Your task to perform on an android device: Show the shopping cart on amazon. Search for "asus rog" on amazon, select the first entry, and add it to the cart. Image 0: 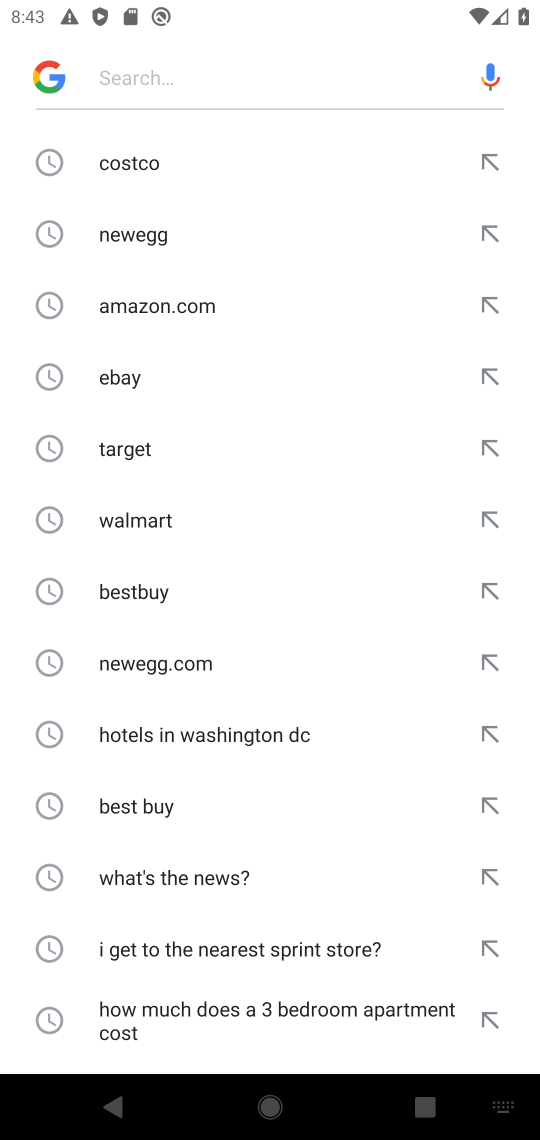
Step 0: press home button
Your task to perform on an android device: Show the shopping cart on amazon. Search for "asus rog" on amazon, select the first entry, and add it to the cart. Image 1: 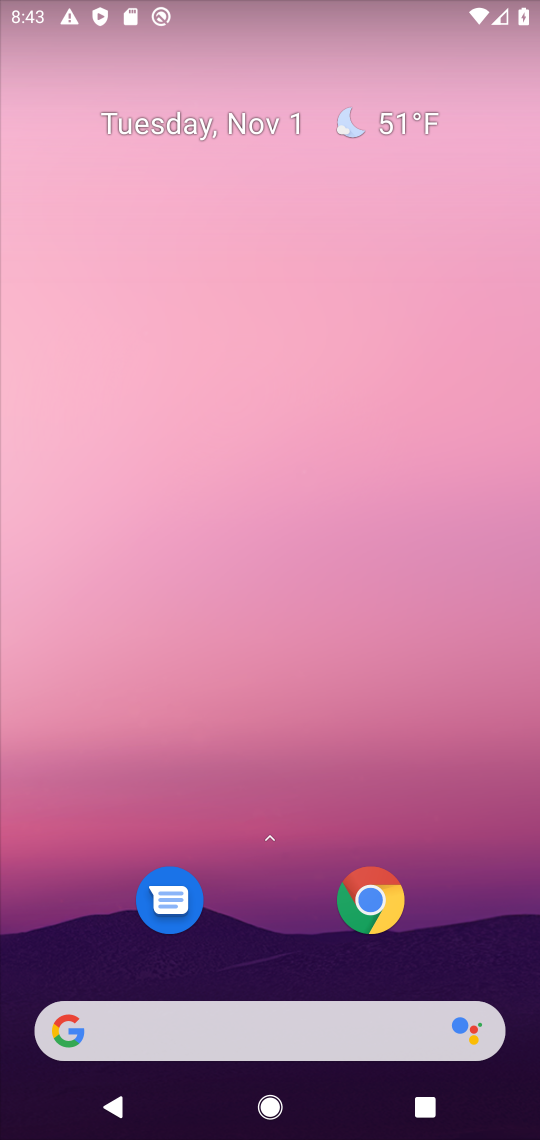
Step 1: drag from (373, 1093) to (528, 44)
Your task to perform on an android device: Show the shopping cart on amazon. Search for "asus rog" on amazon, select the first entry, and add it to the cart. Image 2: 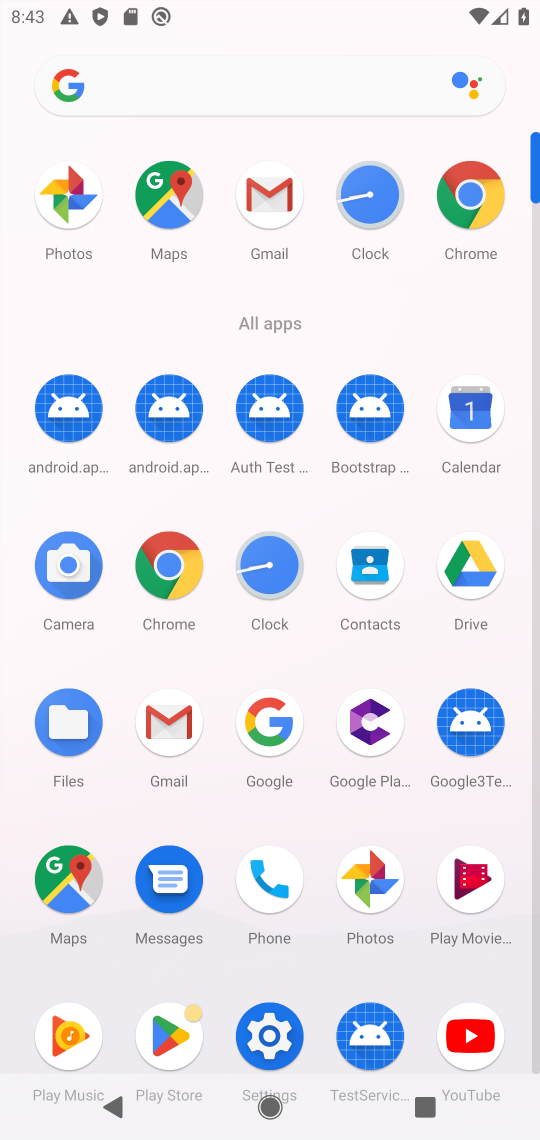
Step 2: click (174, 573)
Your task to perform on an android device: Show the shopping cart on amazon. Search for "asus rog" on amazon, select the first entry, and add it to the cart. Image 3: 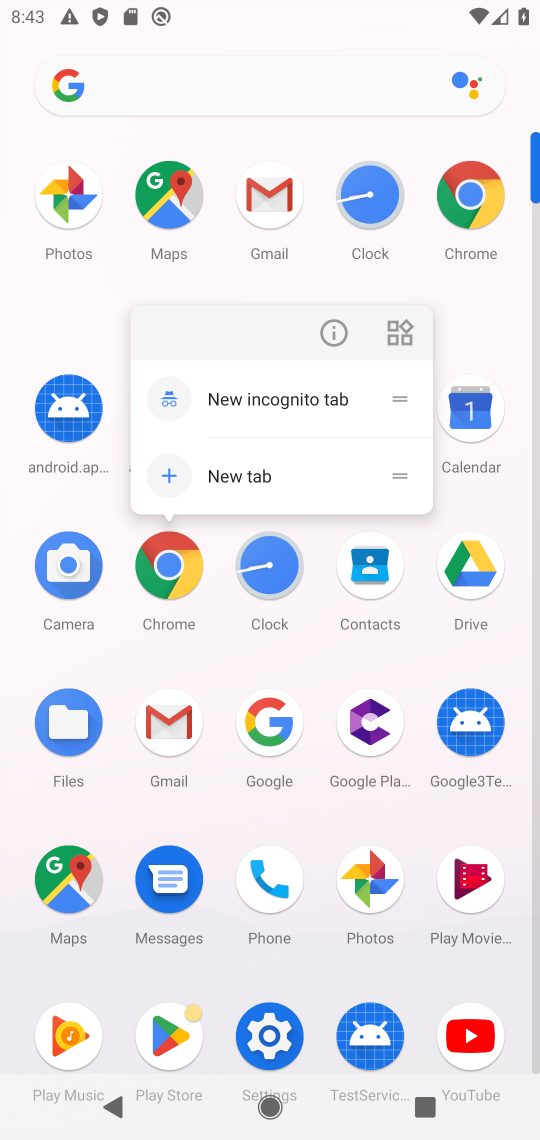
Step 3: click (176, 568)
Your task to perform on an android device: Show the shopping cart on amazon. Search for "asus rog" on amazon, select the first entry, and add it to the cart. Image 4: 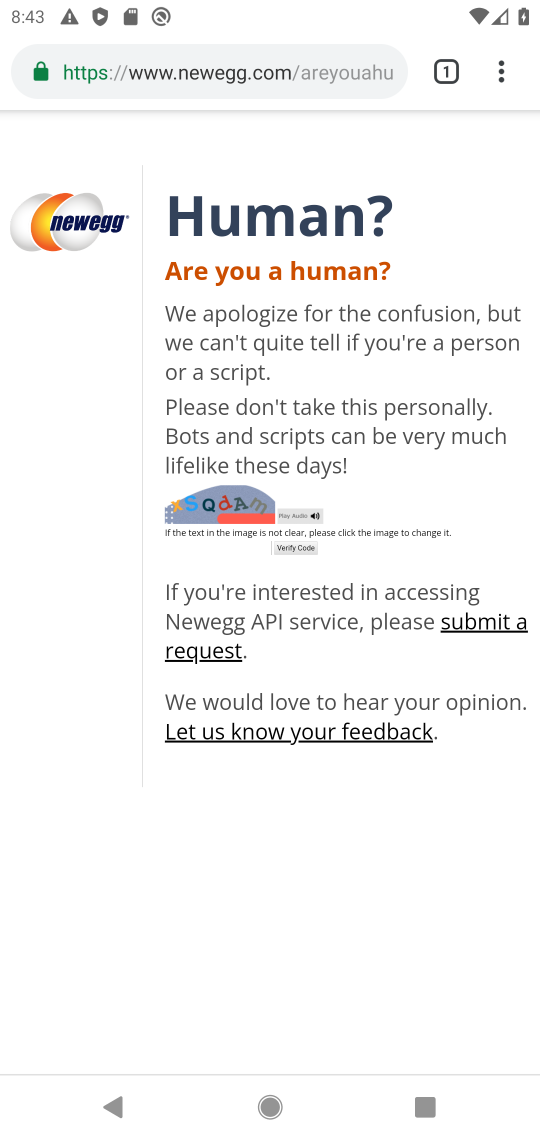
Step 4: click (279, 68)
Your task to perform on an android device: Show the shopping cart on amazon. Search for "asus rog" on amazon, select the first entry, and add it to the cart. Image 5: 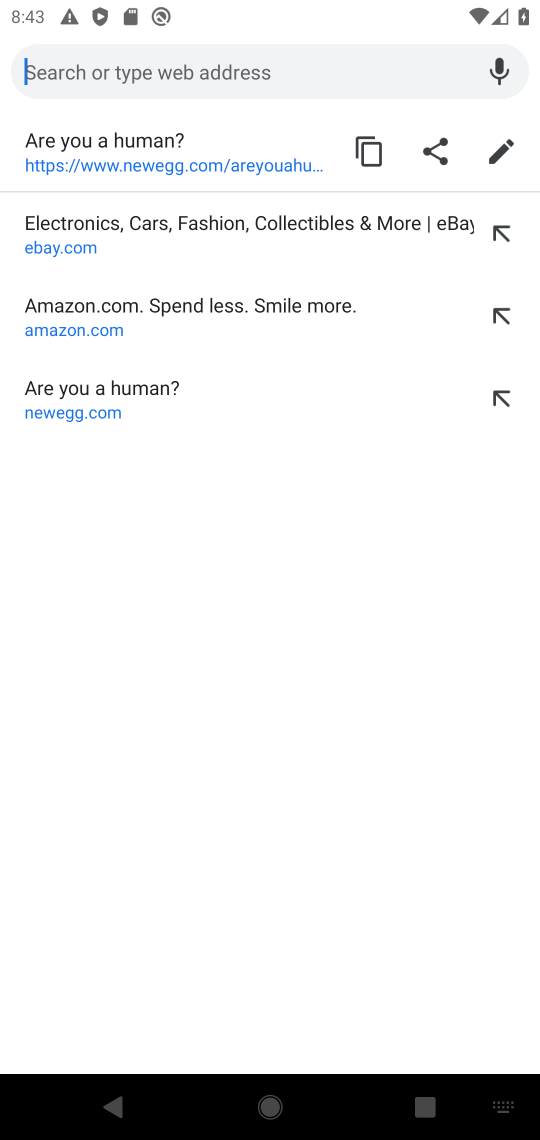
Step 5: type " amazon"
Your task to perform on an android device: Show the shopping cart on amazon. Search for "asus rog" on amazon, select the first entry, and add it to the cart. Image 6: 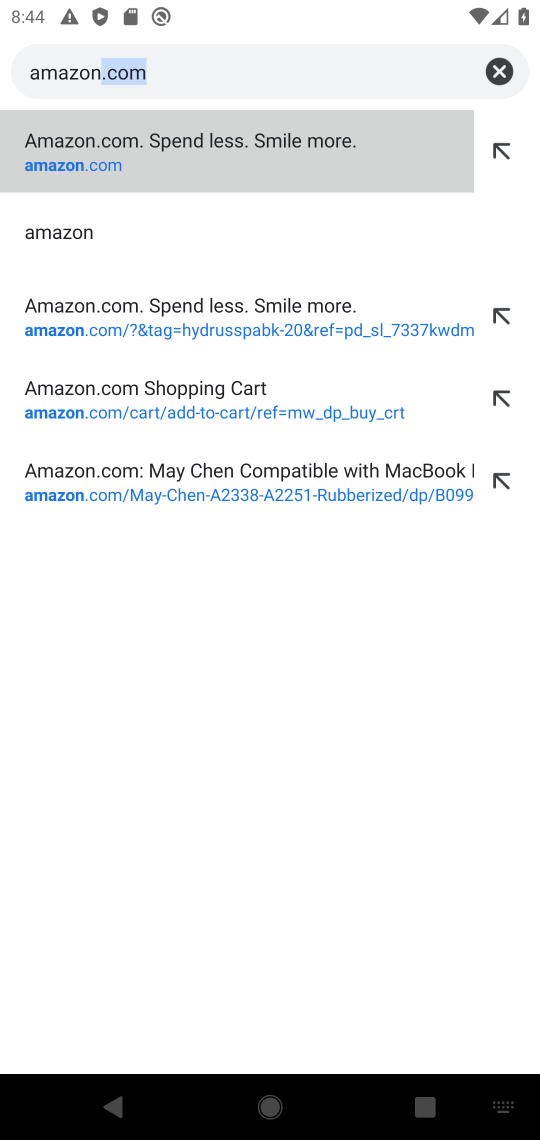
Step 6: click (83, 164)
Your task to perform on an android device: Show the shopping cart on amazon. Search for "asus rog" on amazon, select the first entry, and add it to the cart. Image 7: 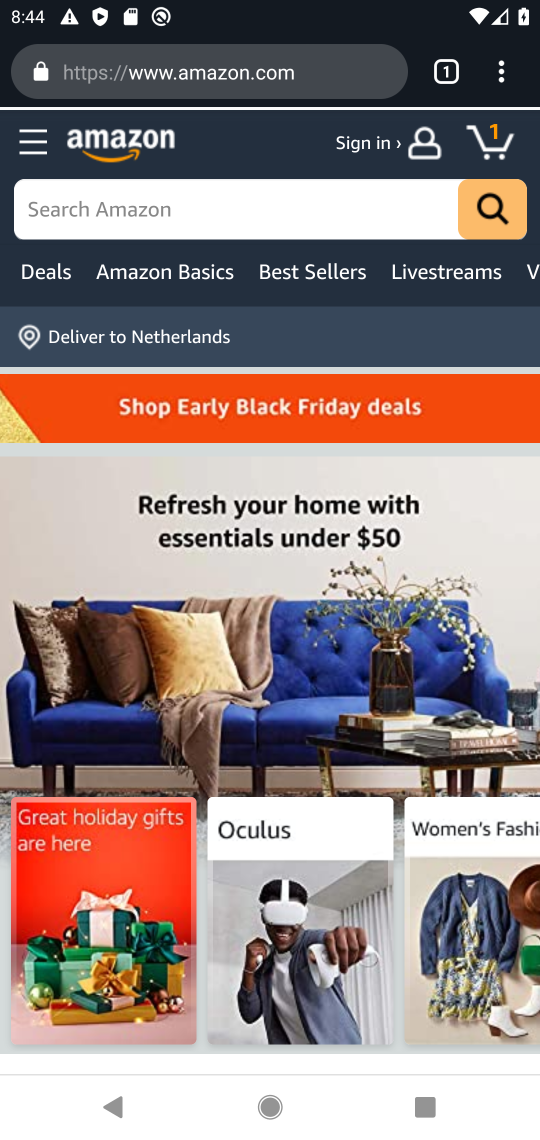
Step 7: click (166, 197)
Your task to perform on an android device: Show the shopping cart on amazon. Search for "asus rog" on amazon, select the first entry, and add it to the cart. Image 8: 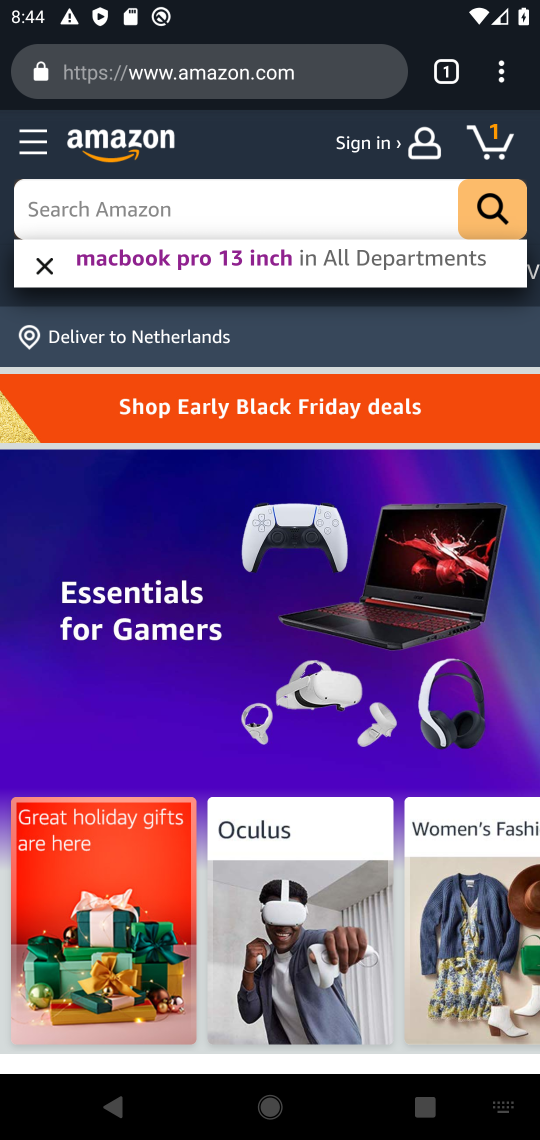
Step 8: type "asus rog"
Your task to perform on an android device: Show the shopping cart on amazon. Search for "asus rog" on amazon, select the first entry, and add it to the cart. Image 9: 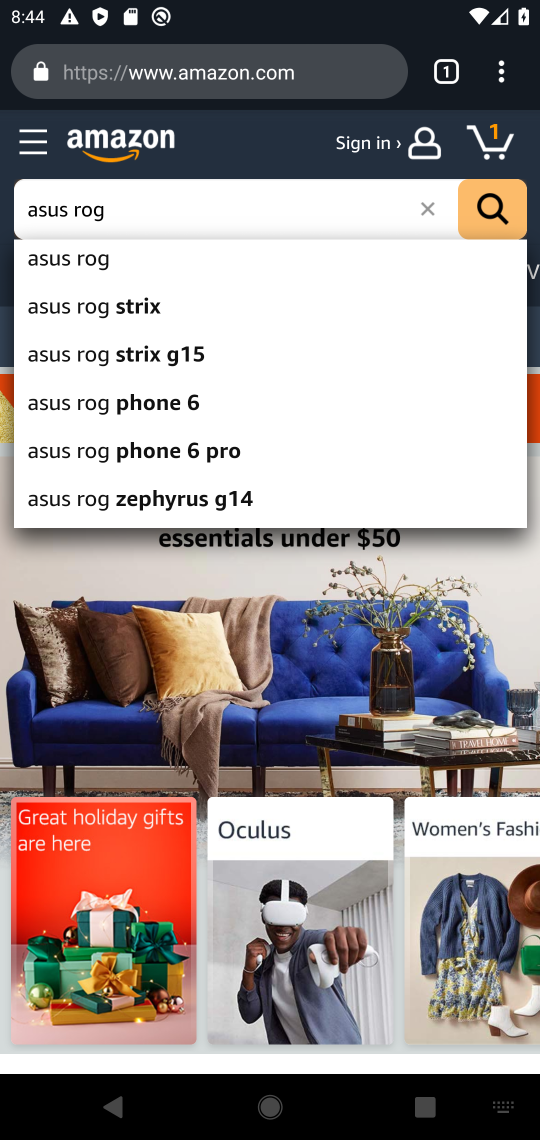
Step 9: click (504, 201)
Your task to perform on an android device: Show the shopping cart on amazon. Search for "asus rog" on amazon, select the first entry, and add it to the cart. Image 10: 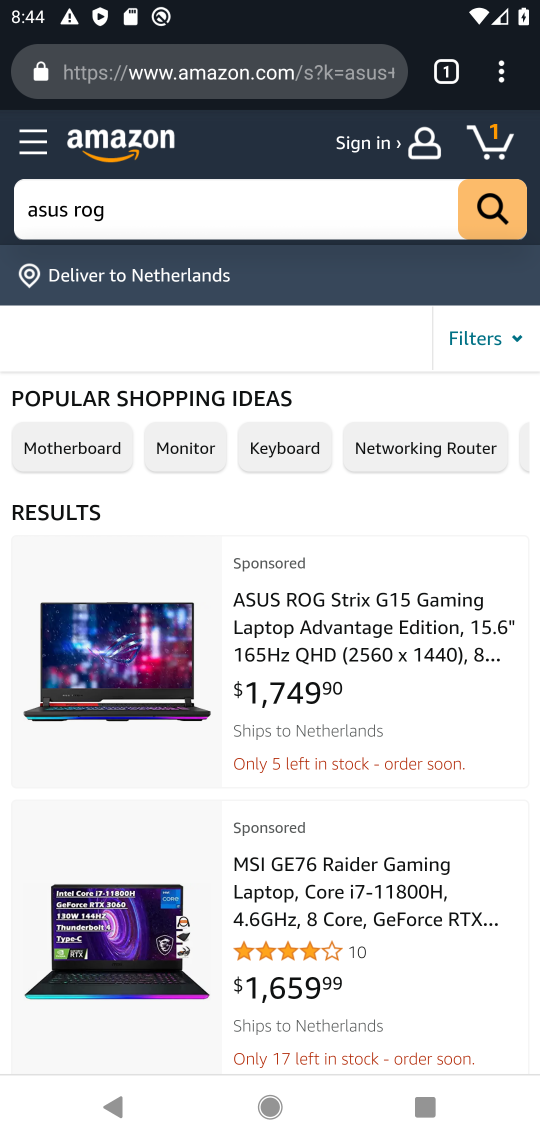
Step 10: click (104, 679)
Your task to perform on an android device: Show the shopping cart on amazon. Search for "asus rog" on amazon, select the first entry, and add it to the cart. Image 11: 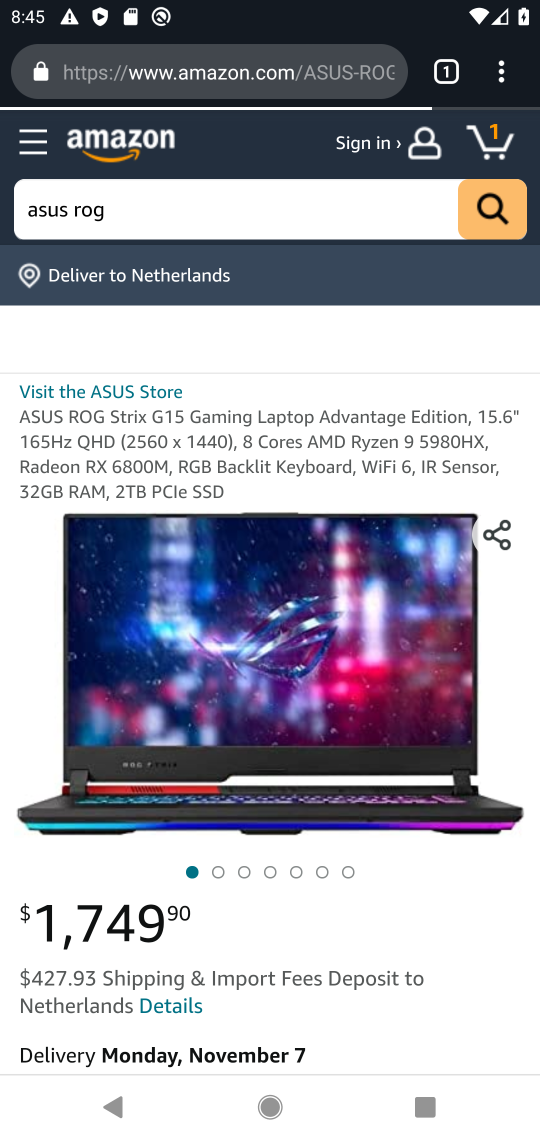
Step 11: drag from (356, 815) to (340, 344)
Your task to perform on an android device: Show the shopping cart on amazon. Search for "asus rog" on amazon, select the first entry, and add it to the cart. Image 12: 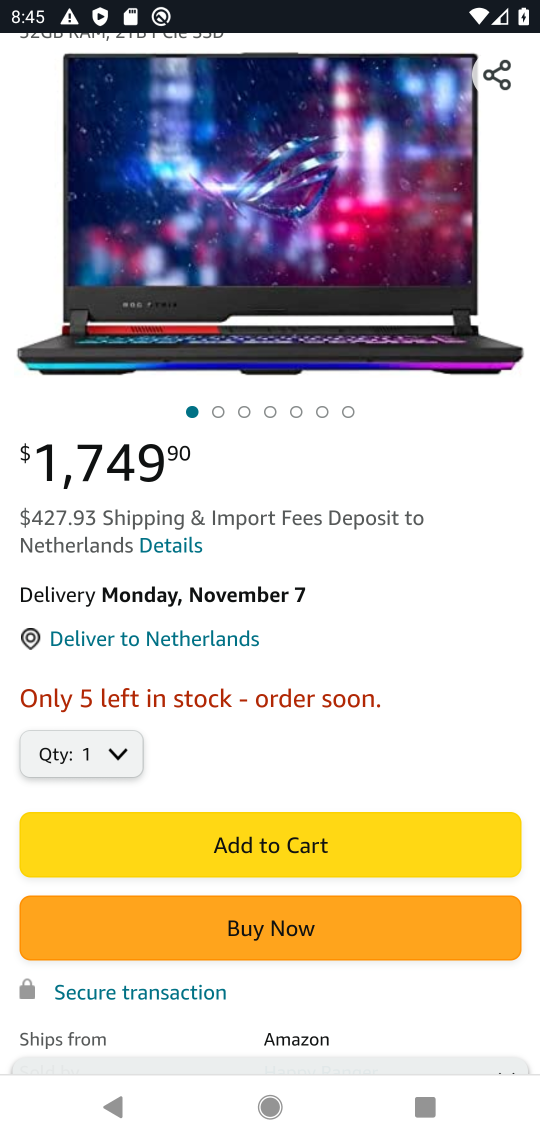
Step 12: click (210, 836)
Your task to perform on an android device: Show the shopping cart on amazon. Search for "asus rog" on amazon, select the first entry, and add it to the cart. Image 13: 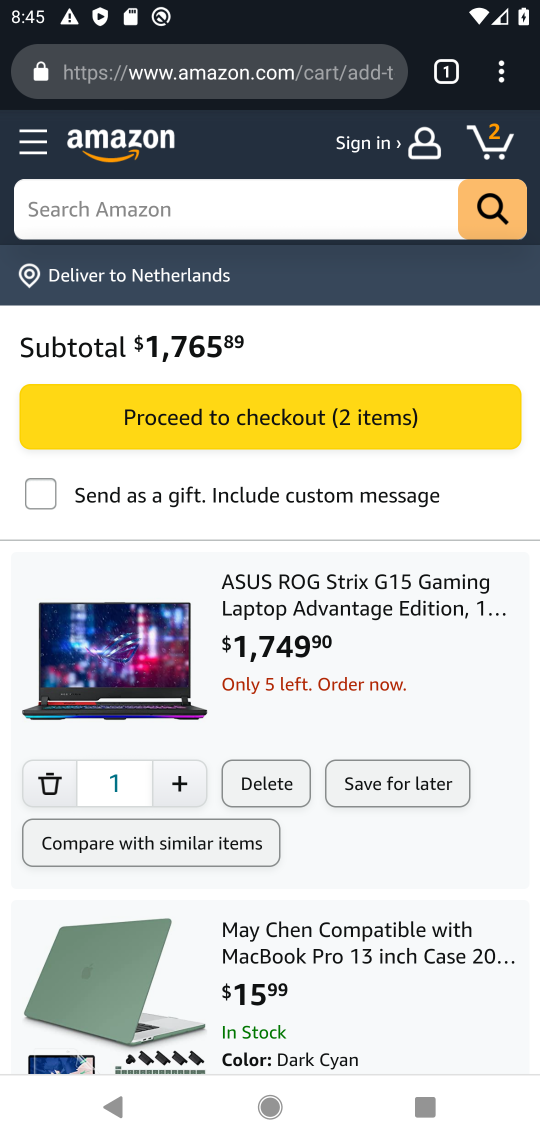
Step 13: task complete